Your task to perform on an android device: toggle translation in the chrome app Image 0: 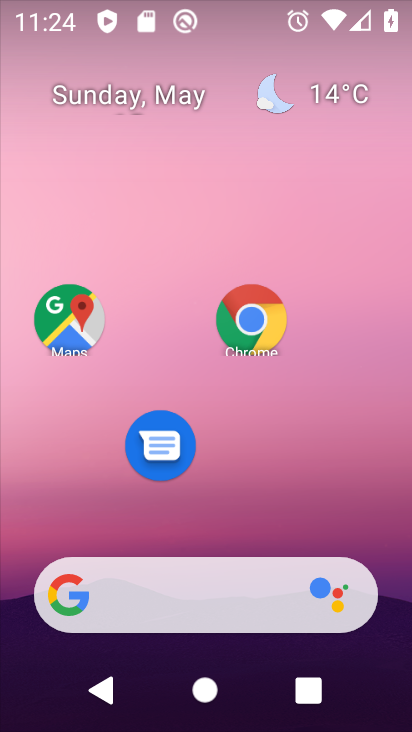
Step 0: press home button
Your task to perform on an android device: toggle translation in the chrome app Image 1: 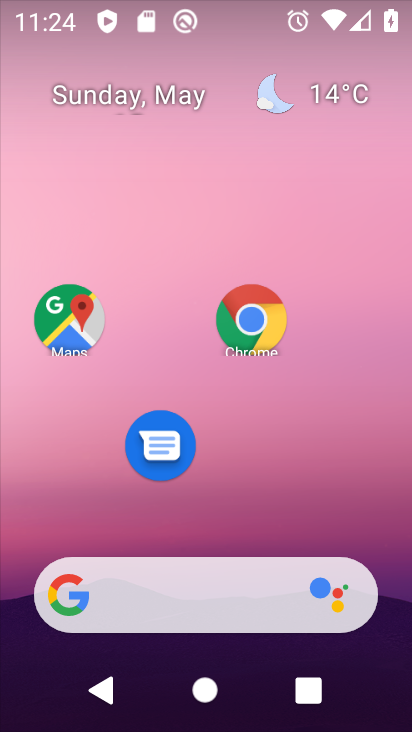
Step 1: click (254, 322)
Your task to perform on an android device: toggle translation in the chrome app Image 2: 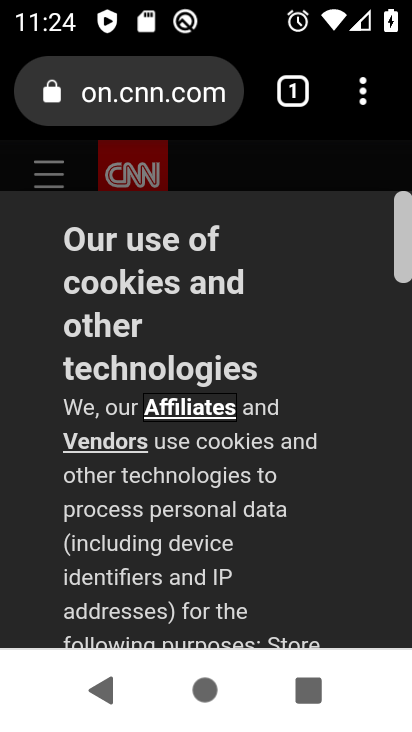
Step 2: drag from (362, 99) to (177, 465)
Your task to perform on an android device: toggle translation in the chrome app Image 3: 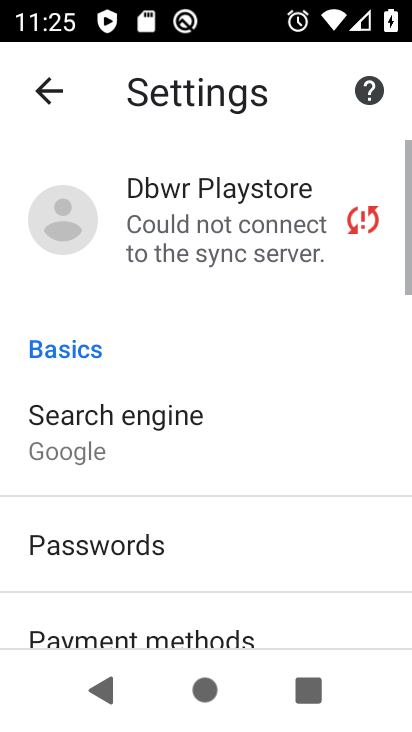
Step 3: drag from (170, 592) to (310, 117)
Your task to perform on an android device: toggle translation in the chrome app Image 4: 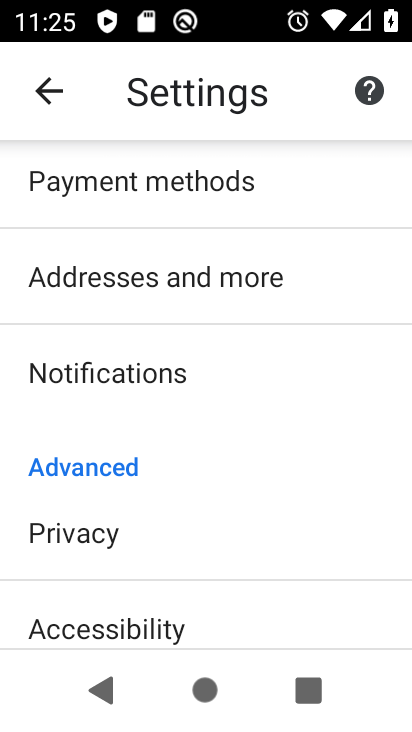
Step 4: drag from (176, 580) to (280, 155)
Your task to perform on an android device: toggle translation in the chrome app Image 5: 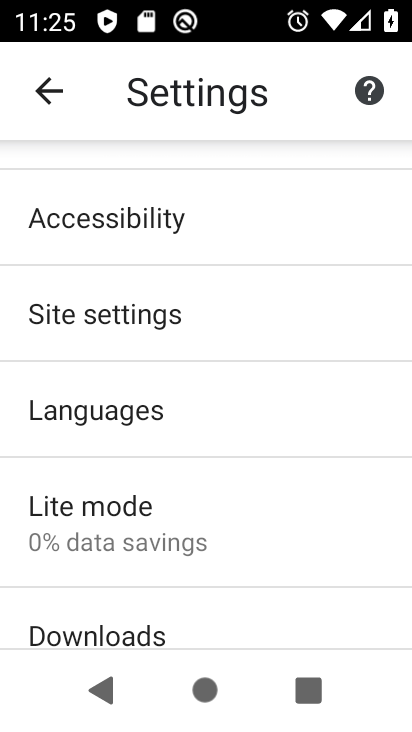
Step 5: click (146, 408)
Your task to perform on an android device: toggle translation in the chrome app Image 6: 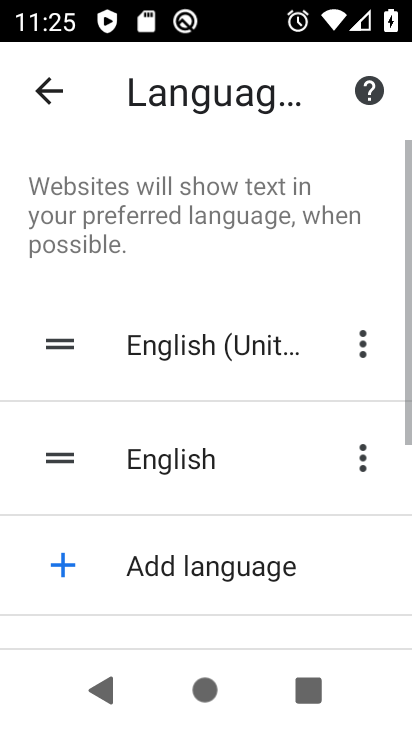
Step 6: drag from (303, 611) to (410, 121)
Your task to perform on an android device: toggle translation in the chrome app Image 7: 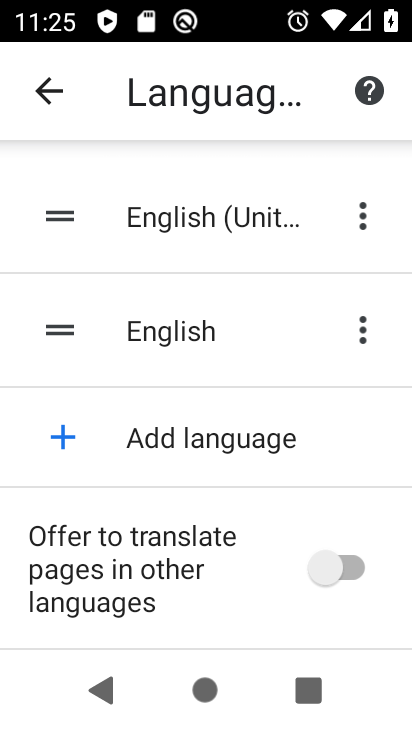
Step 7: click (340, 567)
Your task to perform on an android device: toggle translation in the chrome app Image 8: 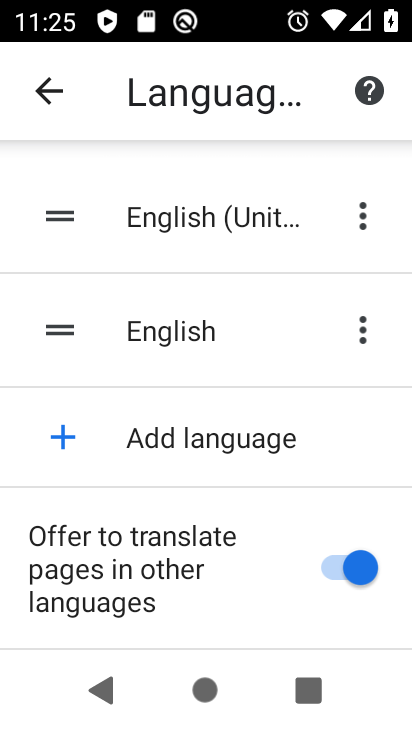
Step 8: task complete